Your task to perform on an android device: Go to CNN.com Image 0: 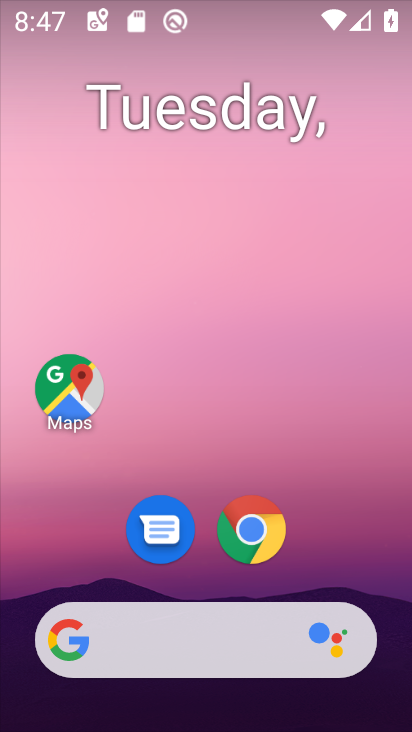
Step 0: click (261, 529)
Your task to perform on an android device: Go to CNN.com Image 1: 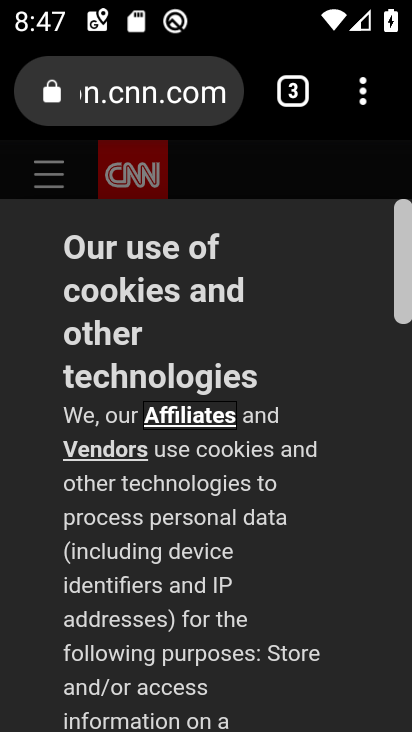
Step 1: click (291, 89)
Your task to perform on an android device: Go to CNN.com Image 2: 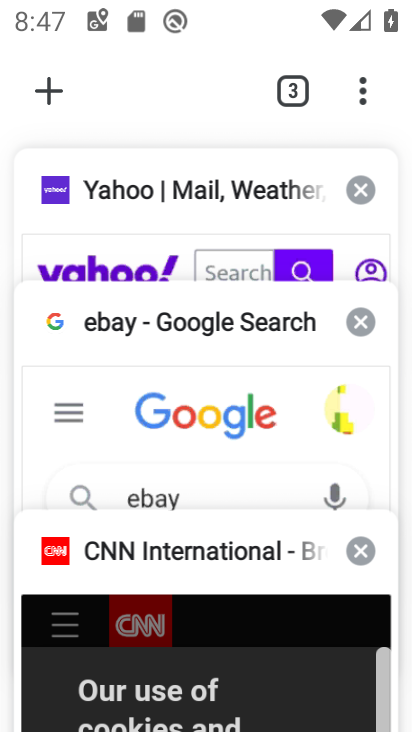
Step 2: click (123, 657)
Your task to perform on an android device: Go to CNN.com Image 3: 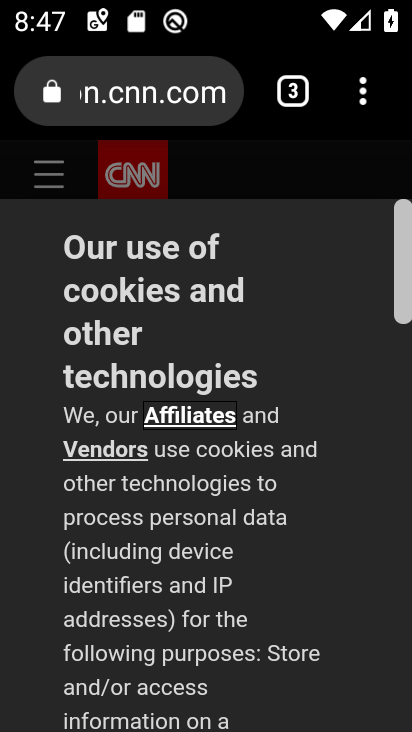
Step 3: task complete